Your task to perform on an android device: Show me popular games on the Play Store Image 0: 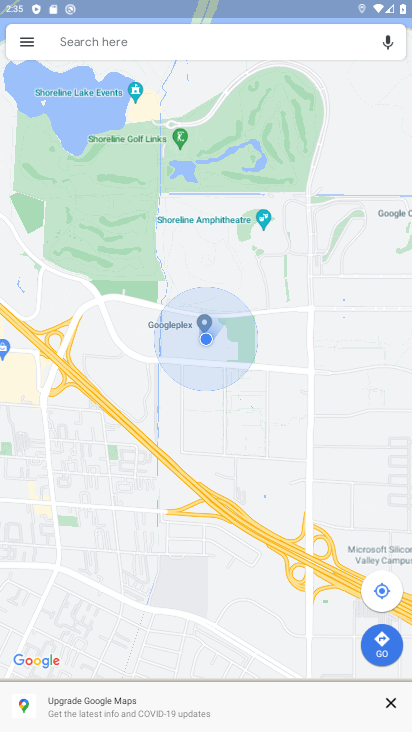
Step 0: press home button
Your task to perform on an android device: Show me popular games on the Play Store Image 1: 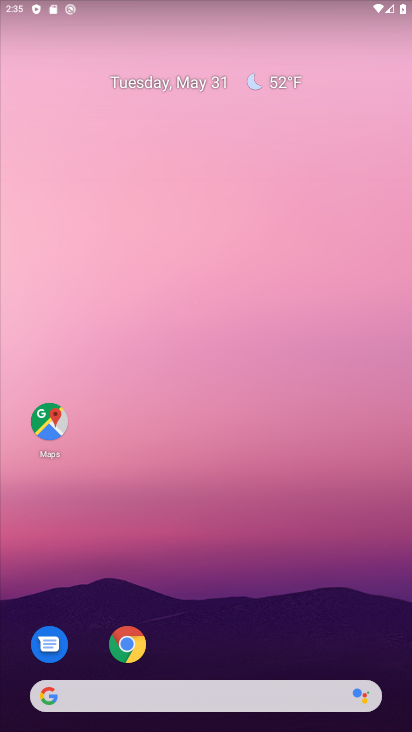
Step 1: drag from (283, 595) to (293, 146)
Your task to perform on an android device: Show me popular games on the Play Store Image 2: 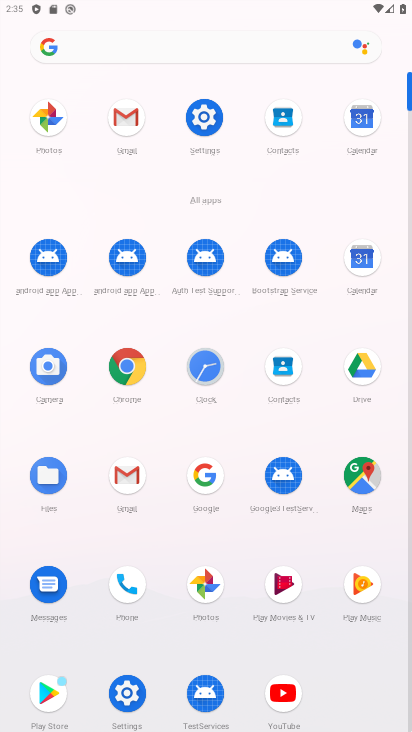
Step 2: click (44, 689)
Your task to perform on an android device: Show me popular games on the Play Store Image 3: 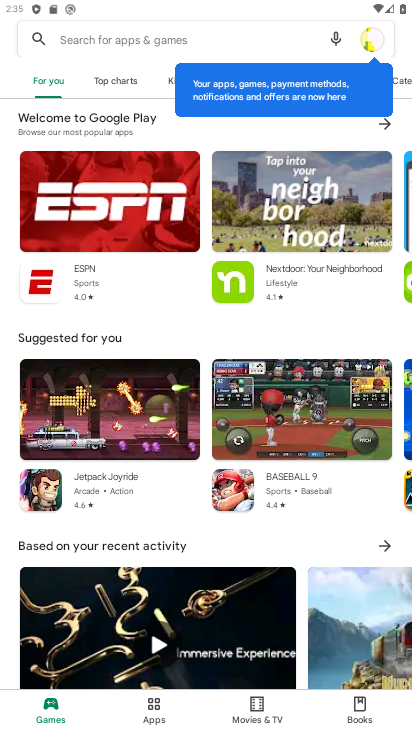
Step 3: drag from (165, 548) to (239, 138)
Your task to perform on an android device: Show me popular games on the Play Store Image 4: 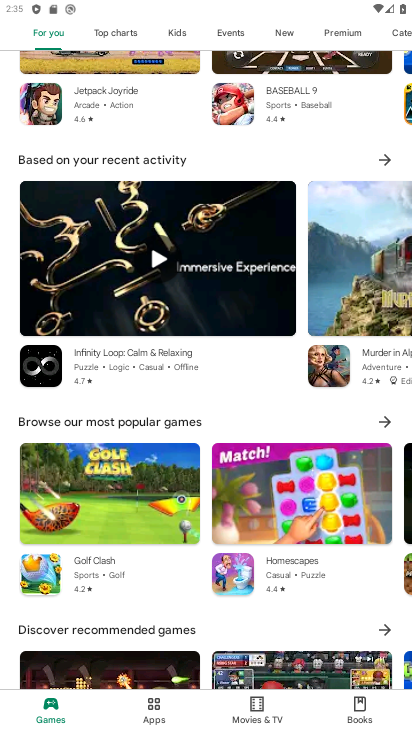
Step 4: click (380, 417)
Your task to perform on an android device: Show me popular games on the Play Store Image 5: 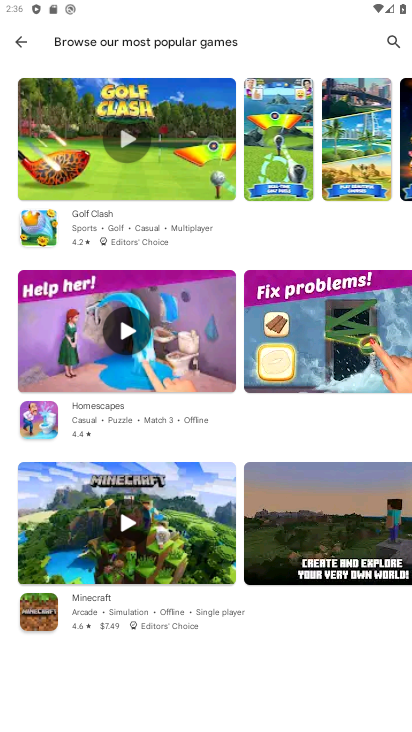
Step 5: task complete